Your task to perform on an android device: turn off notifications settings in the gmail app Image 0: 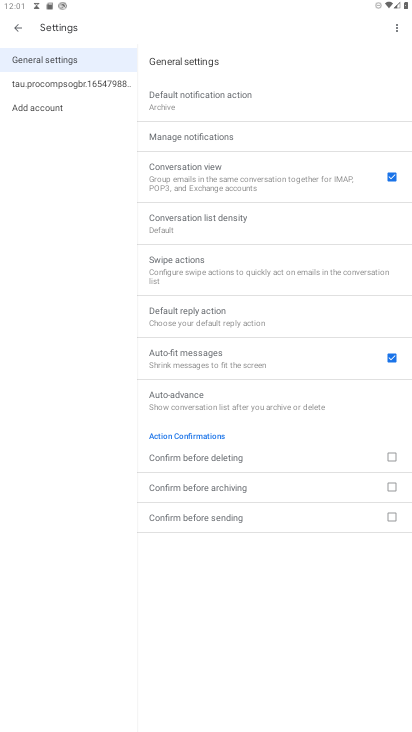
Step 0: press home button
Your task to perform on an android device: turn off notifications settings in the gmail app Image 1: 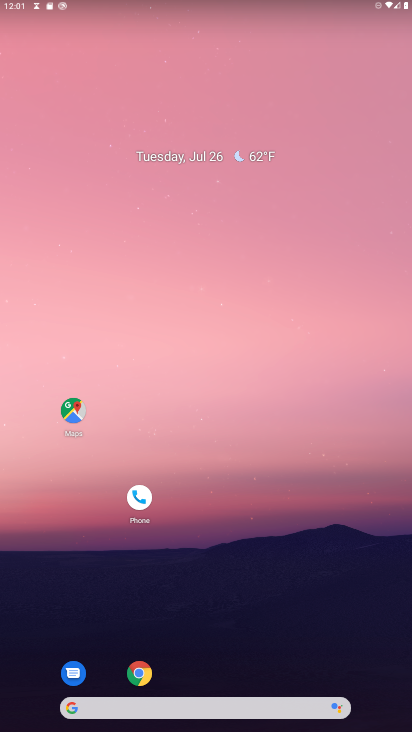
Step 1: drag from (293, 626) to (269, 104)
Your task to perform on an android device: turn off notifications settings in the gmail app Image 2: 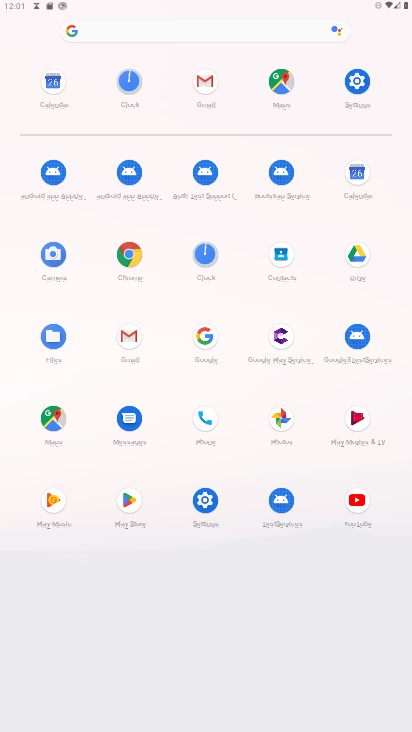
Step 2: click (194, 79)
Your task to perform on an android device: turn off notifications settings in the gmail app Image 3: 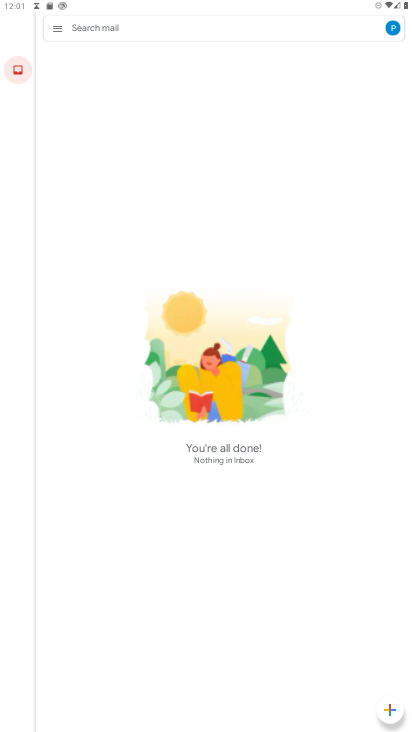
Step 3: click (61, 25)
Your task to perform on an android device: turn off notifications settings in the gmail app Image 4: 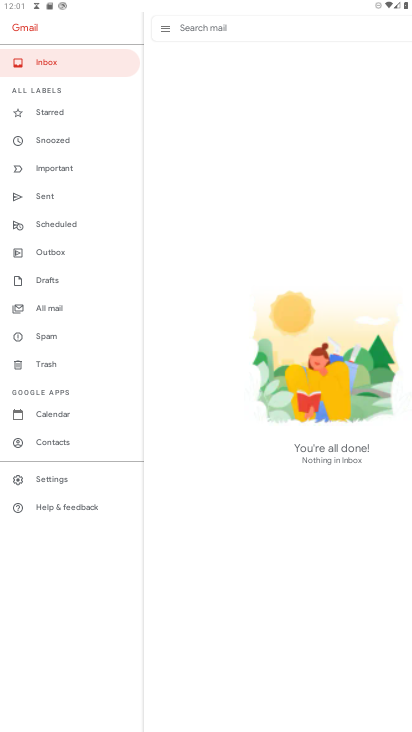
Step 4: click (57, 476)
Your task to perform on an android device: turn off notifications settings in the gmail app Image 5: 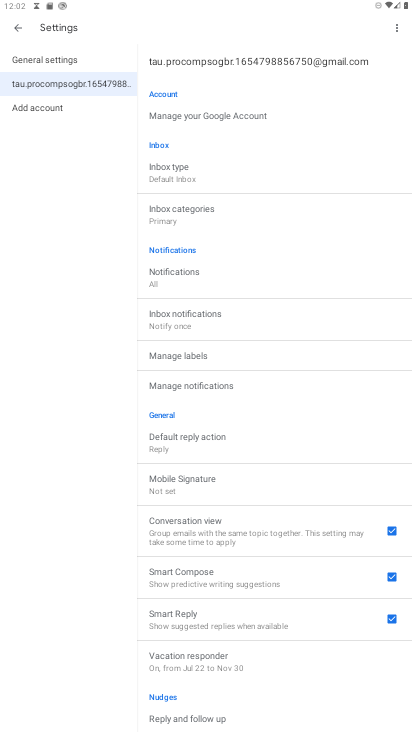
Step 5: click (177, 383)
Your task to perform on an android device: turn off notifications settings in the gmail app Image 6: 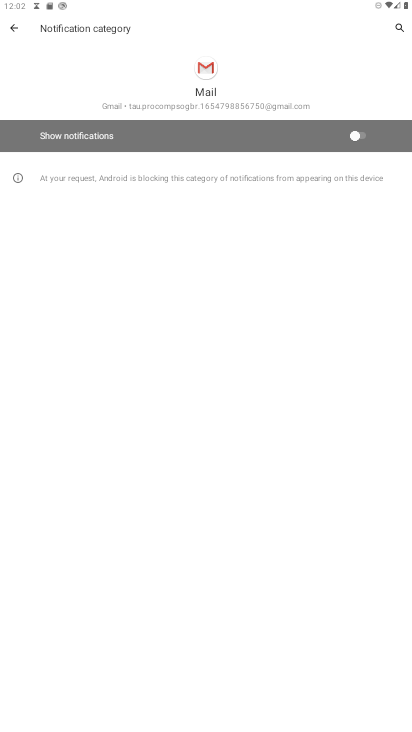
Step 6: task complete